Your task to perform on an android device: Go to sound settings Image 0: 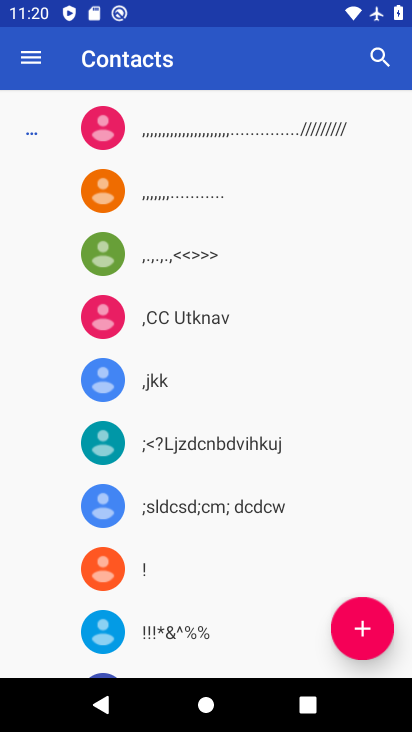
Step 0: press home button
Your task to perform on an android device: Go to sound settings Image 1: 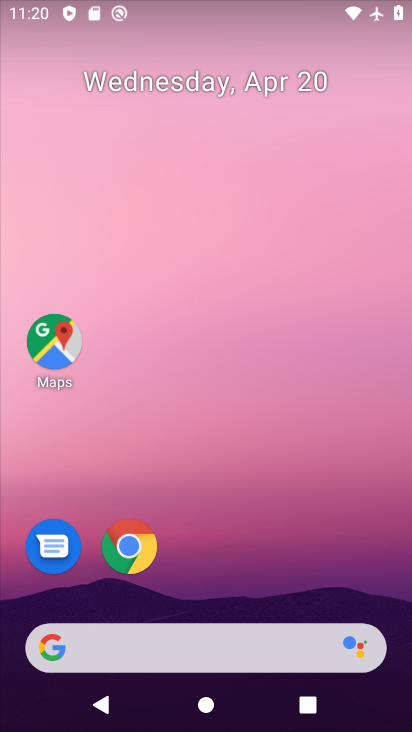
Step 1: drag from (171, 650) to (301, 90)
Your task to perform on an android device: Go to sound settings Image 2: 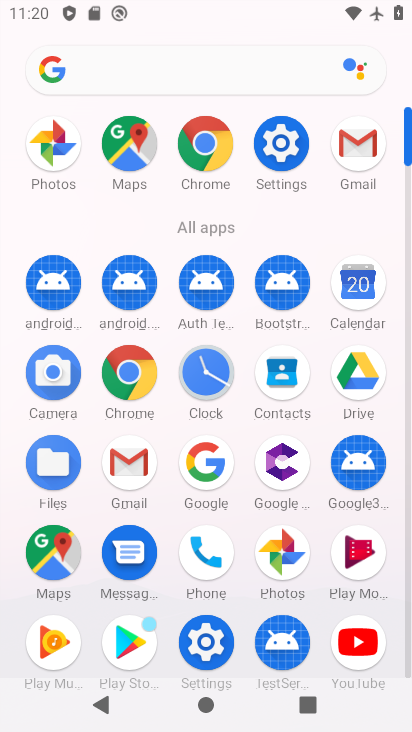
Step 2: click (267, 157)
Your task to perform on an android device: Go to sound settings Image 3: 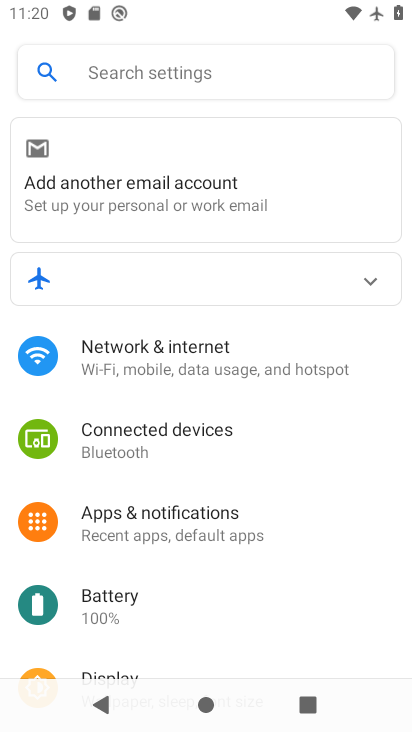
Step 3: drag from (198, 590) to (371, 102)
Your task to perform on an android device: Go to sound settings Image 4: 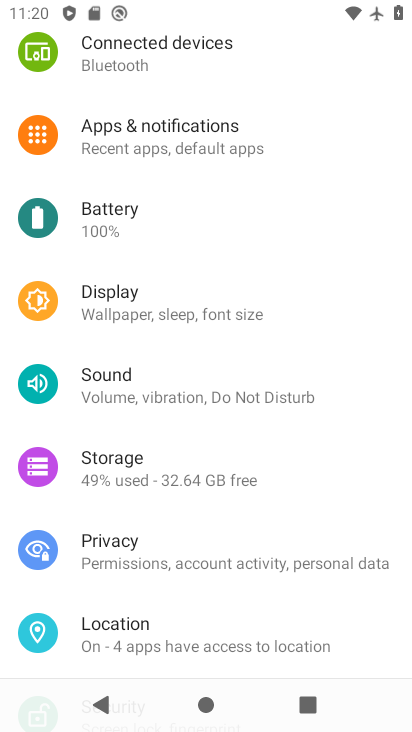
Step 4: click (128, 383)
Your task to perform on an android device: Go to sound settings Image 5: 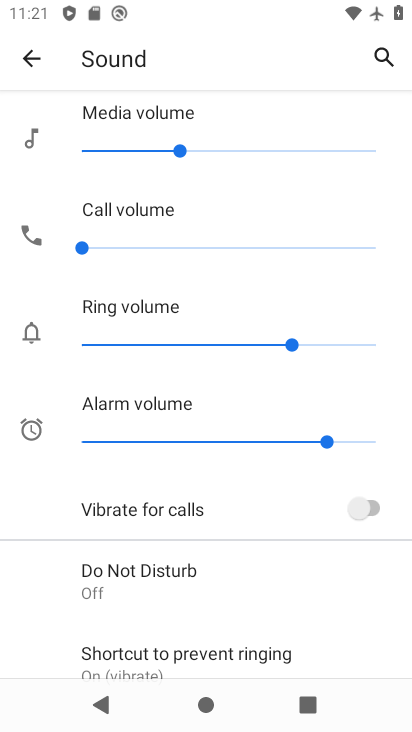
Step 5: task complete